Your task to perform on an android device: Open Wikipedia Image 0: 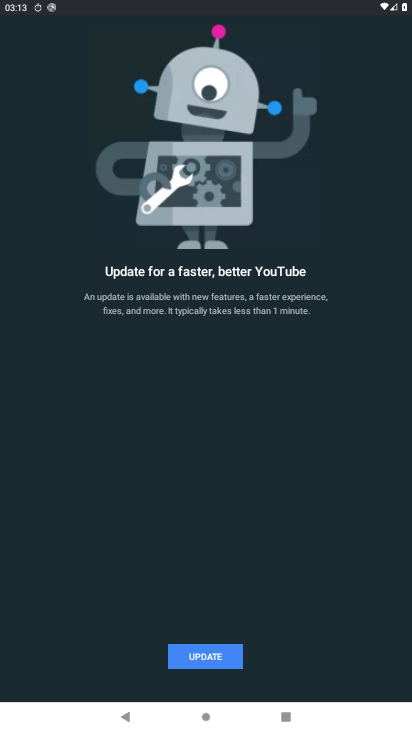
Step 0: press home button
Your task to perform on an android device: Open Wikipedia Image 1: 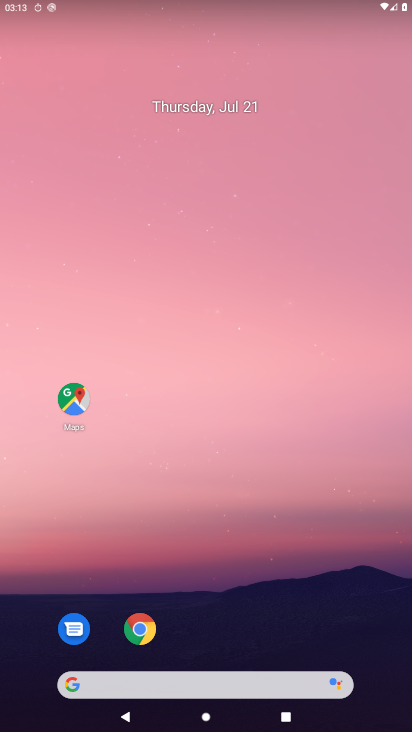
Step 1: drag from (39, 708) to (150, 367)
Your task to perform on an android device: Open Wikipedia Image 2: 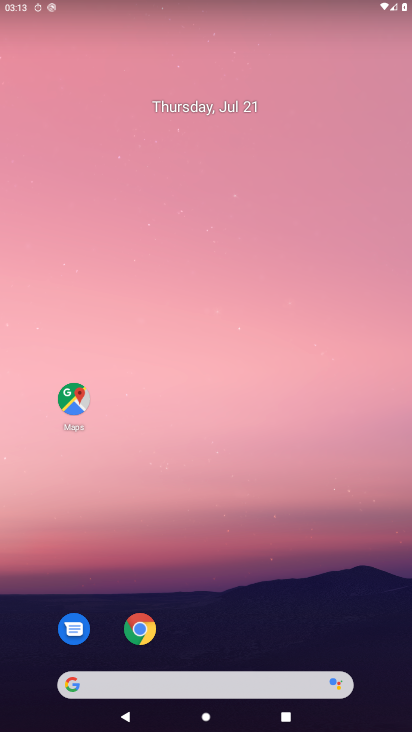
Step 2: click (116, 693)
Your task to perform on an android device: Open Wikipedia Image 3: 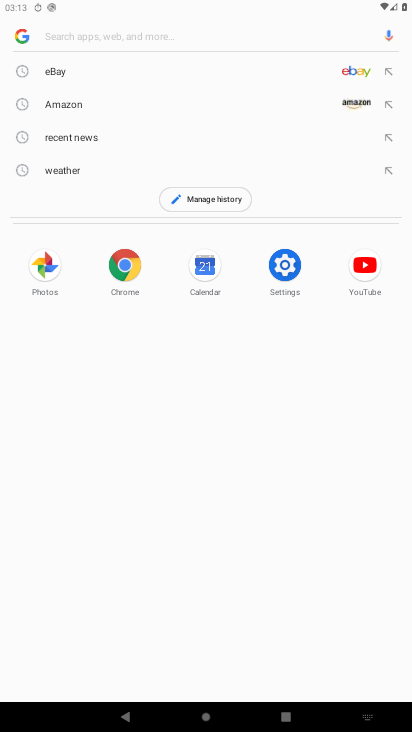
Step 3: type "Wikipedia"
Your task to perform on an android device: Open Wikipedia Image 4: 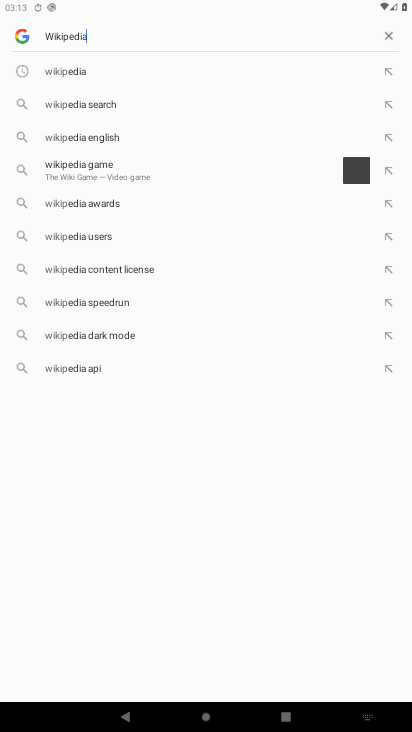
Step 4: type ""
Your task to perform on an android device: Open Wikipedia Image 5: 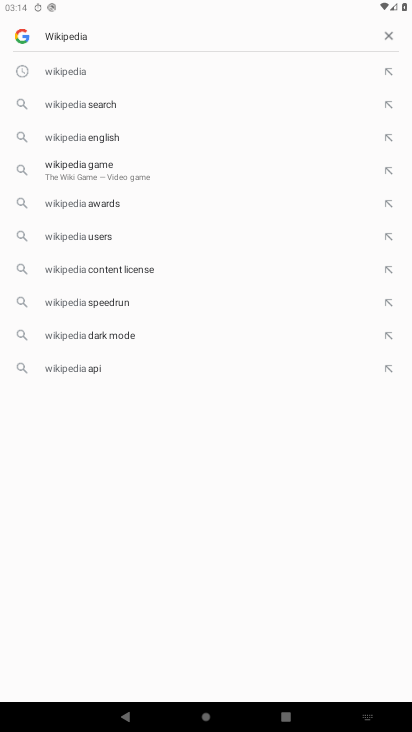
Step 5: click (75, 77)
Your task to perform on an android device: Open Wikipedia Image 6: 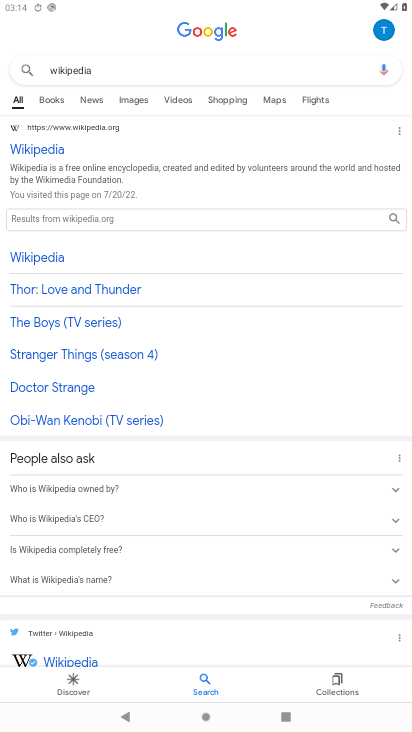
Step 6: task complete